Your task to perform on an android device: Open Chrome and go to the settings page Image 0: 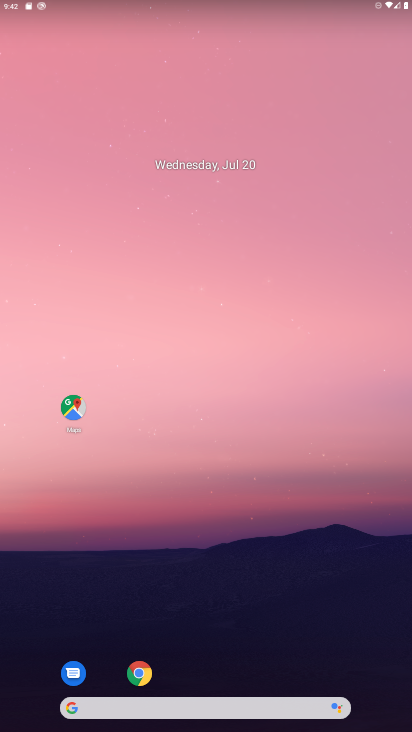
Step 0: drag from (212, 581) to (253, 154)
Your task to perform on an android device: Open Chrome and go to the settings page Image 1: 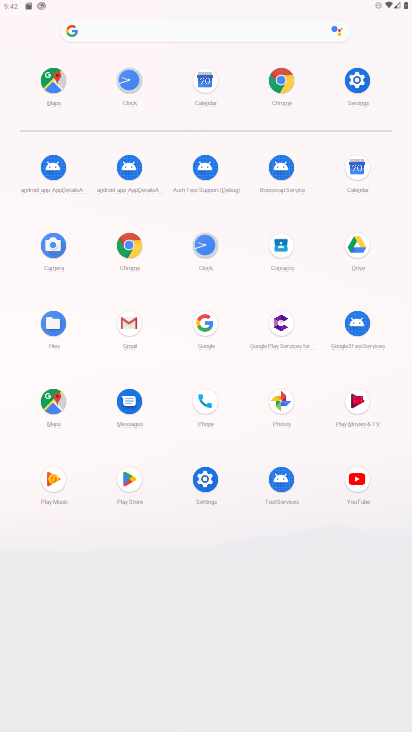
Step 1: click (198, 486)
Your task to perform on an android device: Open Chrome and go to the settings page Image 2: 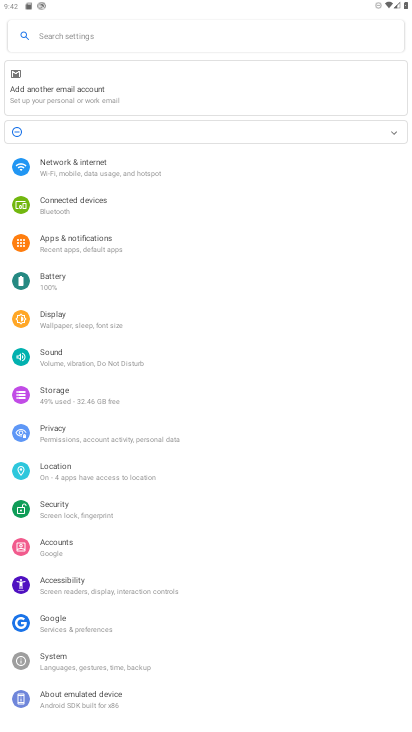
Step 2: press home button
Your task to perform on an android device: Open Chrome and go to the settings page Image 3: 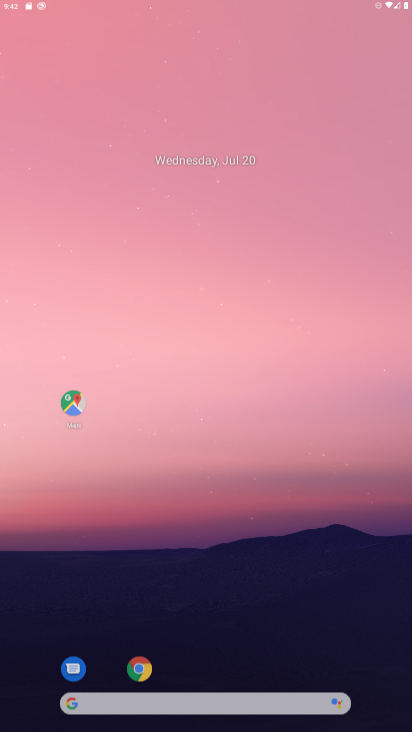
Step 3: drag from (256, 399) to (243, 6)
Your task to perform on an android device: Open Chrome and go to the settings page Image 4: 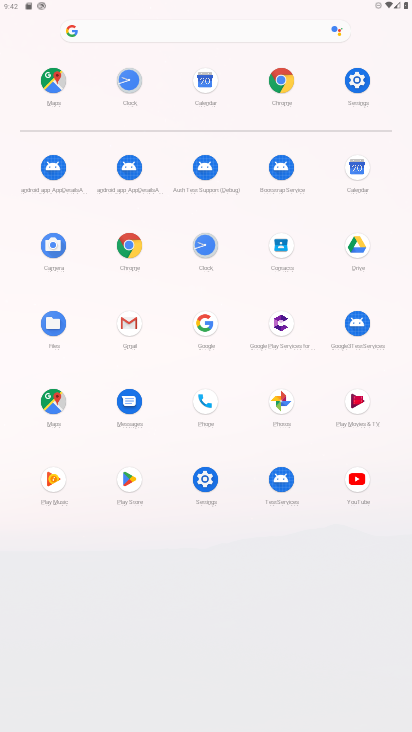
Step 4: click (128, 243)
Your task to perform on an android device: Open Chrome and go to the settings page Image 5: 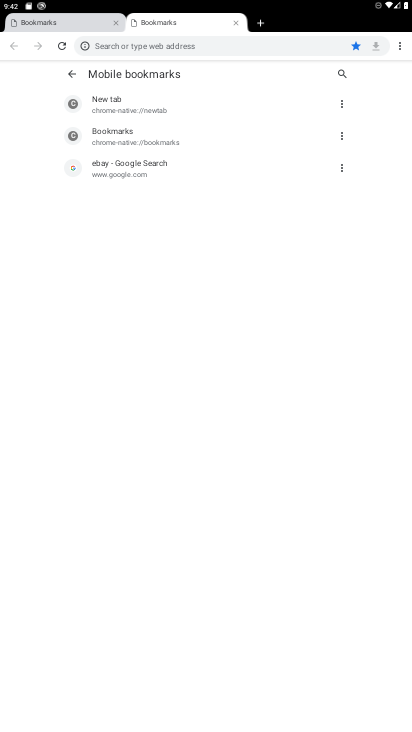
Step 5: task complete